Your task to perform on an android device: Turn on the flashlight Image 0: 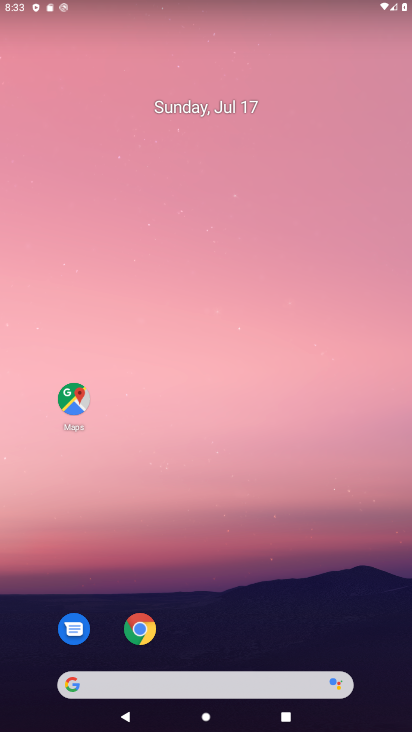
Step 0: drag from (311, 629) to (297, 133)
Your task to perform on an android device: Turn on the flashlight Image 1: 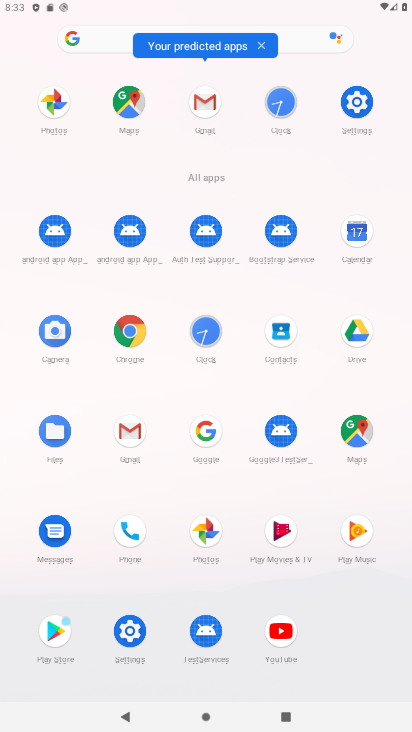
Step 1: click (370, 107)
Your task to perform on an android device: Turn on the flashlight Image 2: 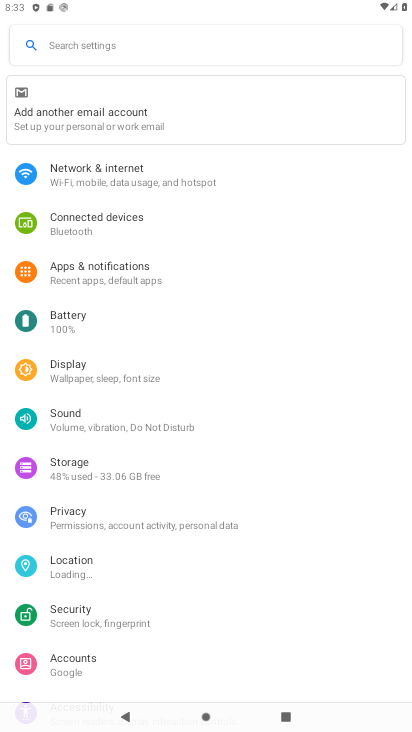
Step 2: task complete